Your task to perform on an android device: allow notifications from all sites in the chrome app Image 0: 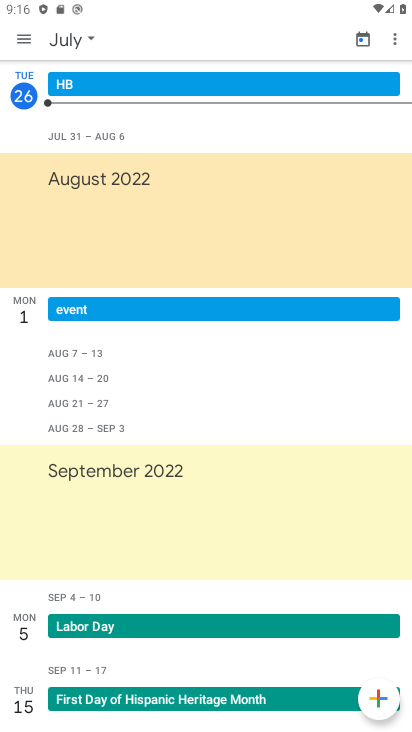
Step 0: press home button
Your task to perform on an android device: allow notifications from all sites in the chrome app Image 1: 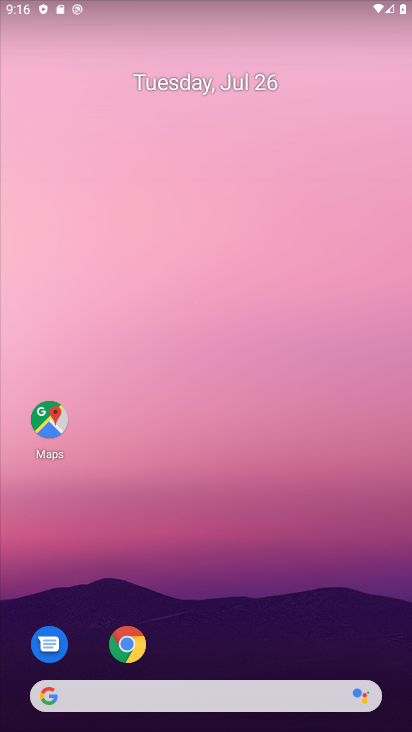
Step 1: drag from (213, 646) to (209, 137)
Your task to perform on an android device: allow notifications from all sites in the chrome app Image 2: 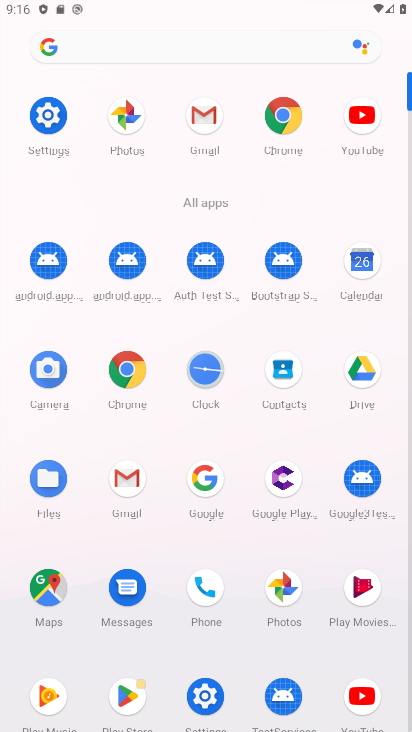
Step 2: click (138, 377)
Your task to perform on an android device: allow notifications from all sites in the chrome app Image 3: 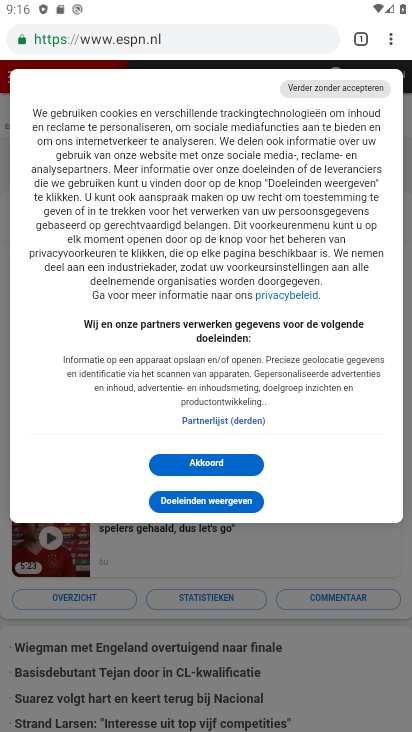
Step 3: click (388, 50)
Your task to perform on an android device: allow notifications from all sites in the chrome app Image 4: 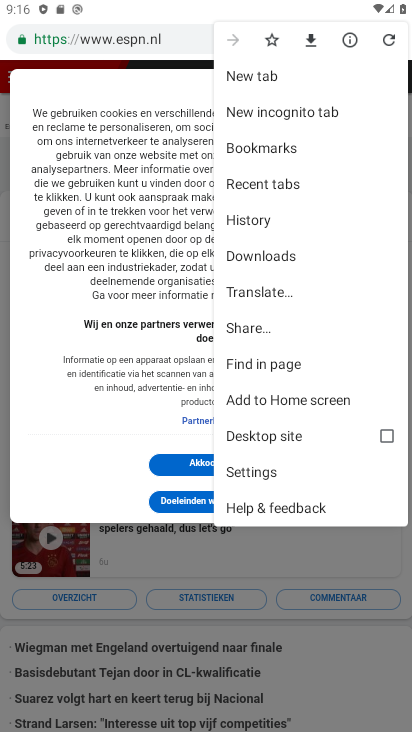
Step 4: click (247, 476)
Your task to perform on an android device: allow notifications from all sites in the chrome app Image 5: 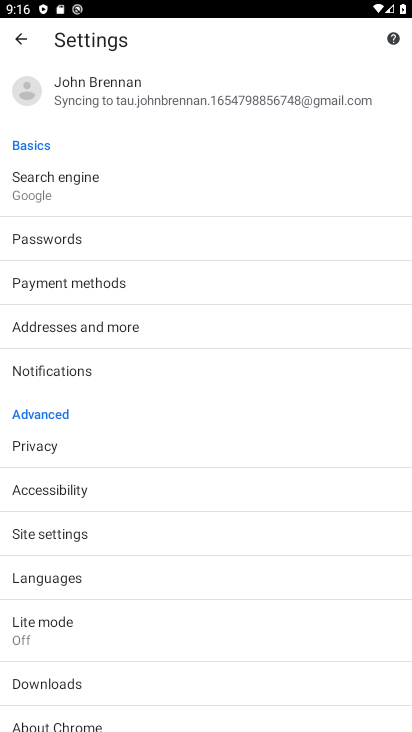
Step 5: click (79, 380)
Your task to perform on an android device: allow notifications from all sites in the chrome app Image 6: 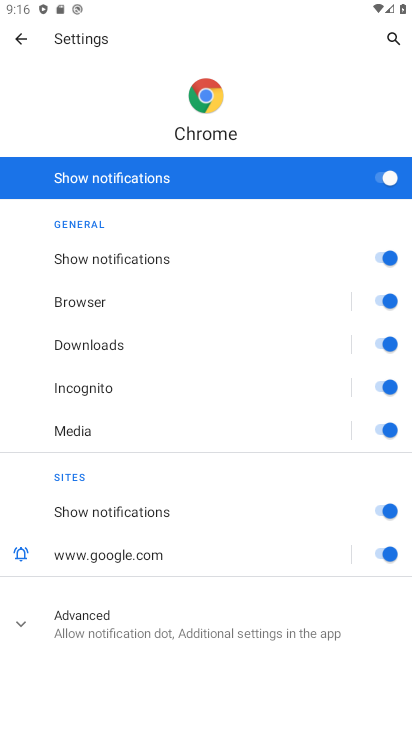
Step 6: task complete